Your task to perform on an android device: Open Wikipedia Image 0: 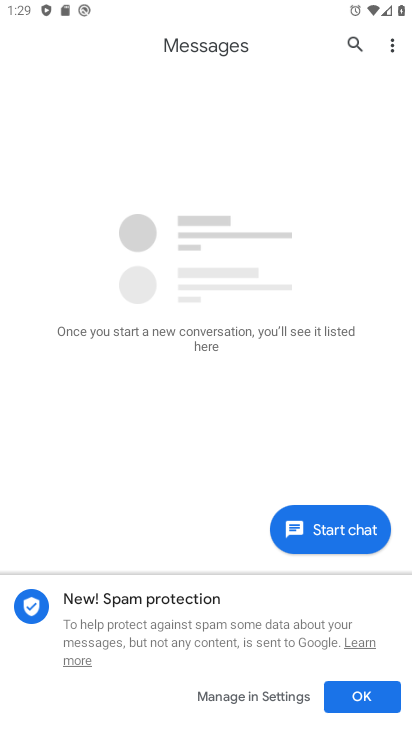
Step 0: press home button
Your task to perform on an android device: Open Wikipedia Image 1: 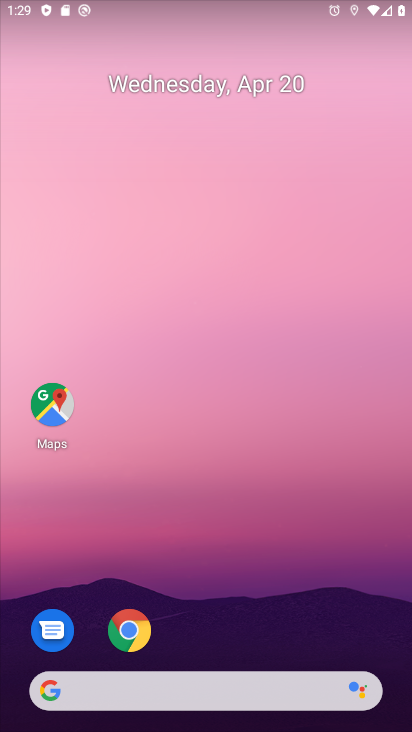
Step 1: click (130, 628)
Your task to perform on an android device: Open Wikipedia Image 2: 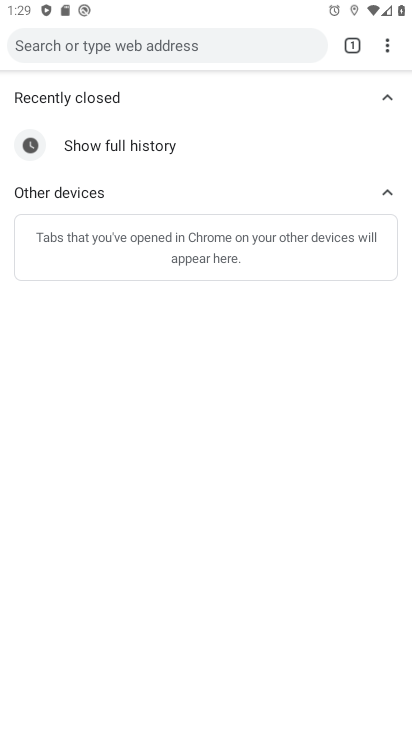
Step 2: click (355, 50)
Your task to perform on an android device: Open Wikipedia Image 3: 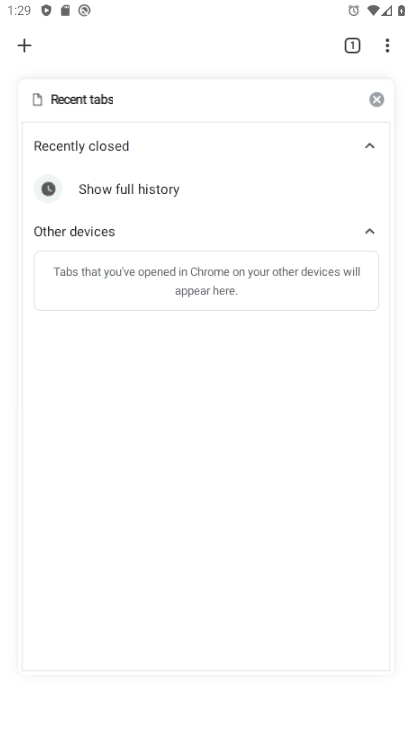
Step 3: click (18, 43)
Your task to perform on an android device: Open Wikipedia Image 4: 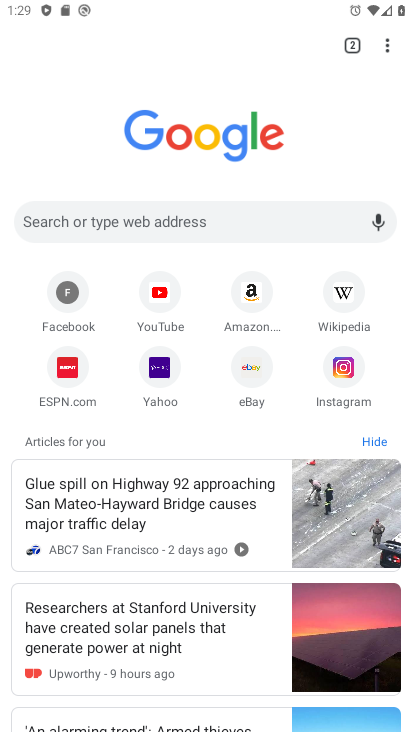
Step 4: click (345, 288)
Your task to perform on an android device: Open Wikipedia Image 5: 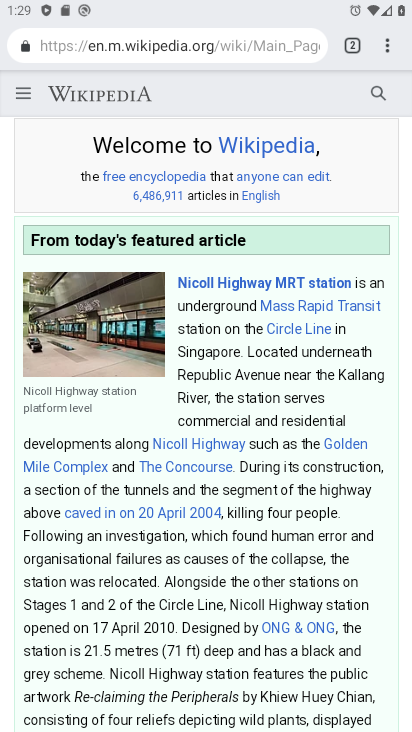
Step 5: task complete